Your task to perform on an android device: turn pop-ups off in chrome Image 0: 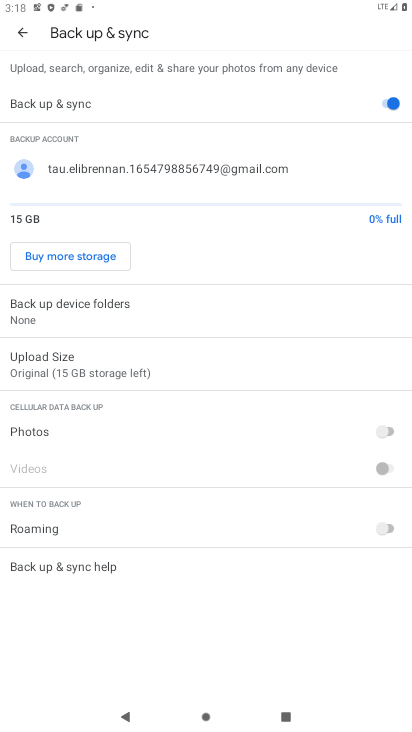
Step 0: press home button
Your task to perform on an android device: turn pop-ups off in chrome Image 1: 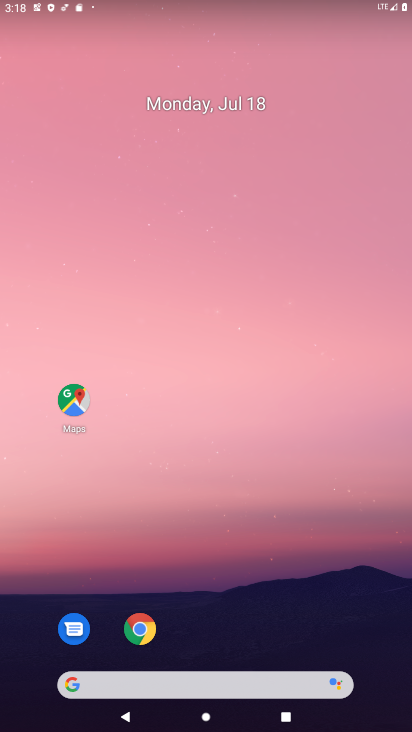
Step 1: drag from (222, 598) to (216, 209)
Your task to perform on an android device: turn pop-ups off in chrome Image 2: 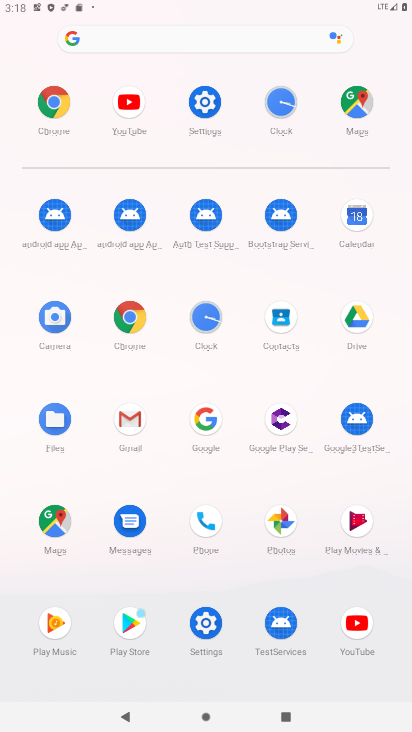
Step 2: click (117, 313)
Your task to perform on an android device: turn pop-ups off in chrome Image 3: 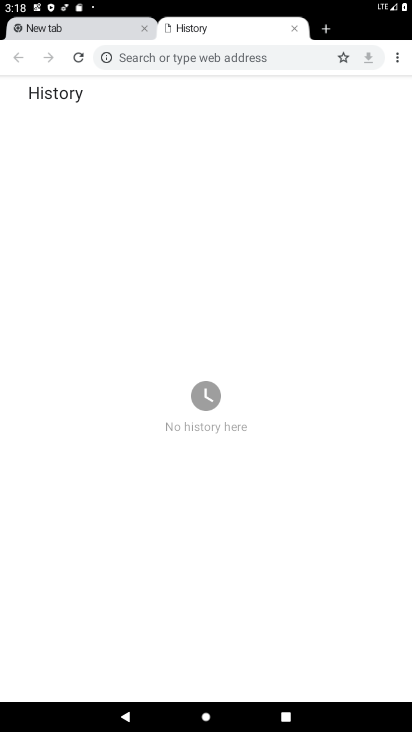
Step 3: click (395, 64)
Your task to perform on an android device: turn pop-ups off in chrome Image 4: 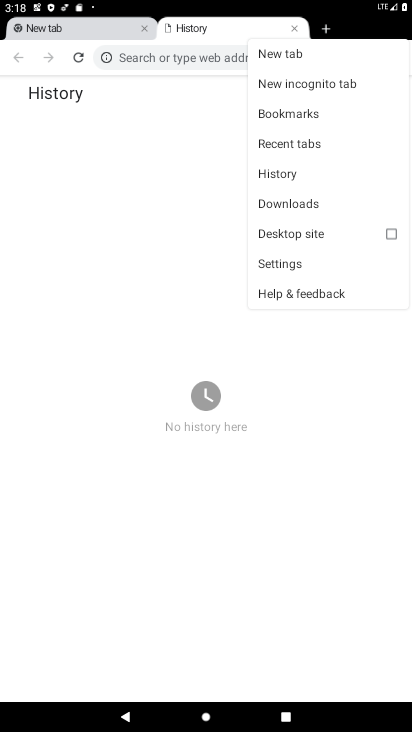
Step 4: click (285, 268)
Your task to perform on an android device: turn pop-ups off in chrome Image 5: 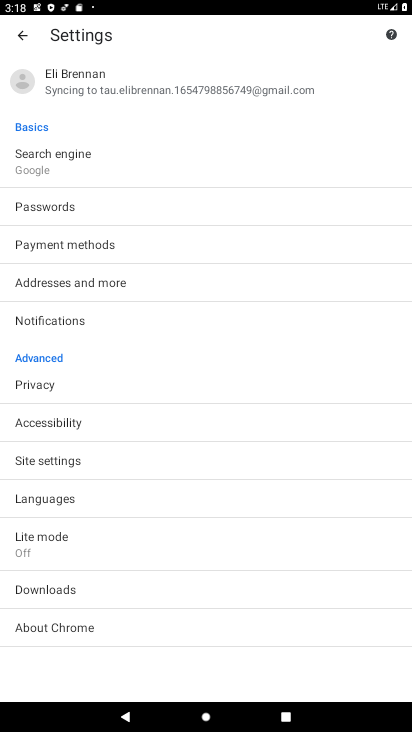
Step 5: click (82, 458)
Your task to perform on an android device: turn pop-ups off in chrome Image 6: 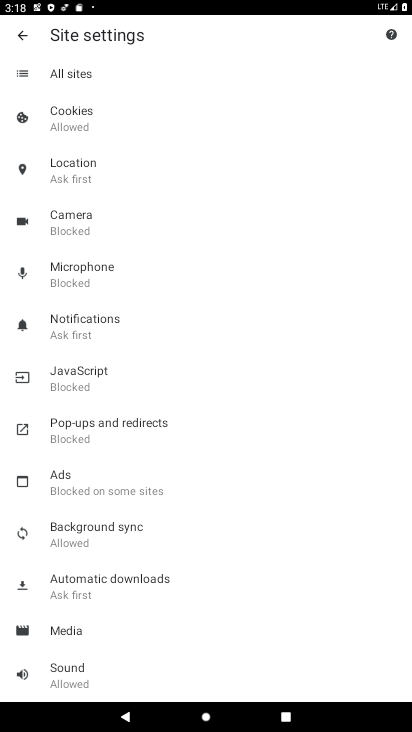
Step 6: click (98, 440)
Your task to perform on an android device: turn pop-ups off in chrome Image 7: 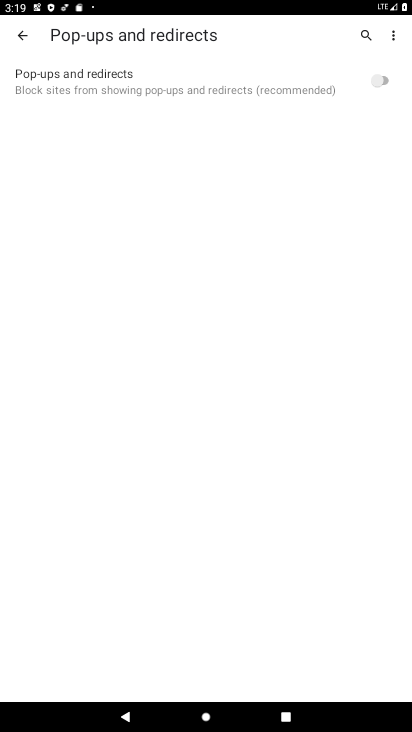
Step 7: click (387, 83)
Your task to perform on an android device: turn pop-ups off in chrome Image 8: 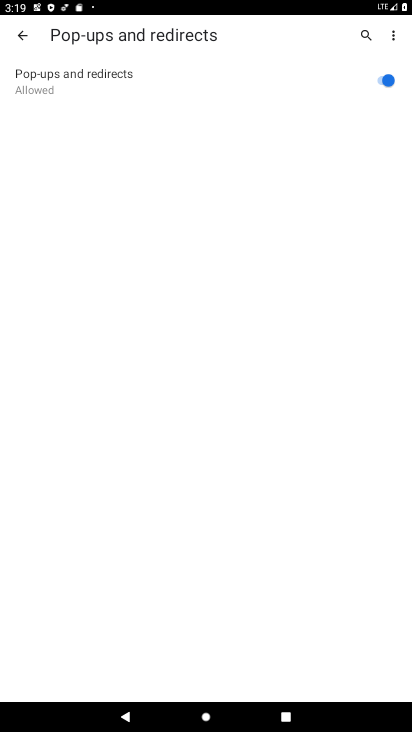
Step 8: task complete